Your task to perform on an android device: turn smart compose on in the gmail app Image 0: 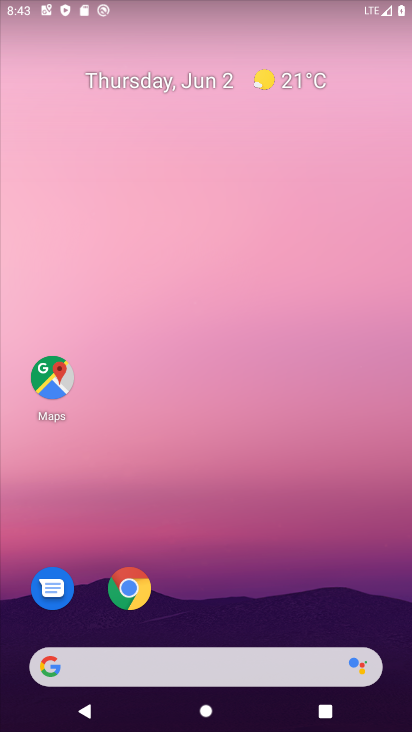
Step 0: drag from (238, 617) to (254, 276)
Your task to perform on an android device: turn smart compose on in the gmail app Image 1: 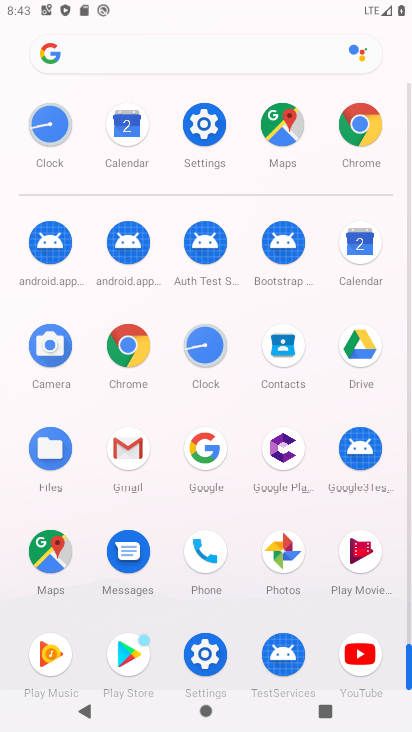
Step 1: drag from (231, 497) to (253, 248)
Your task to perform on an android device: turn smart compose on in the gmail app Image 2: 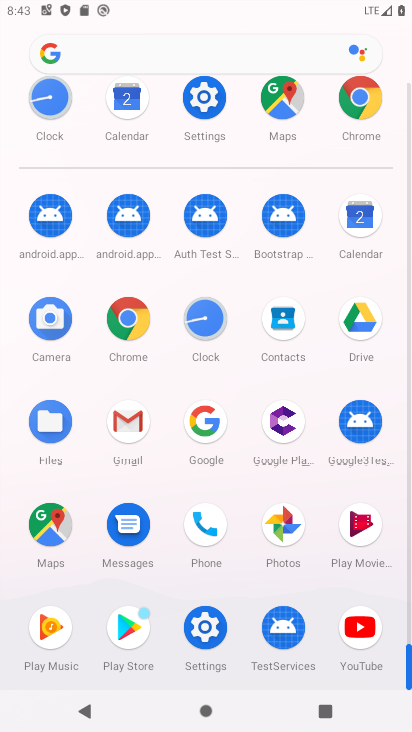
Step 2: click (135, 430)
Your task to perform on an android device: turn smart compose on in the gmail app Image 3: 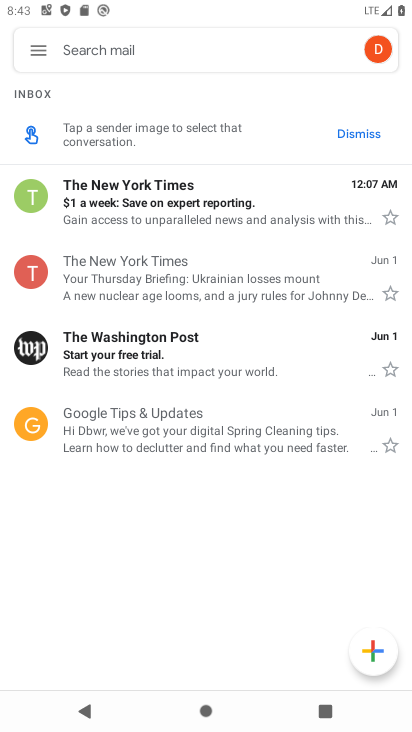
Step 3: click (46, 51)
Your task to perform on an android device: turn smart compose on in the gmail app Image 4: 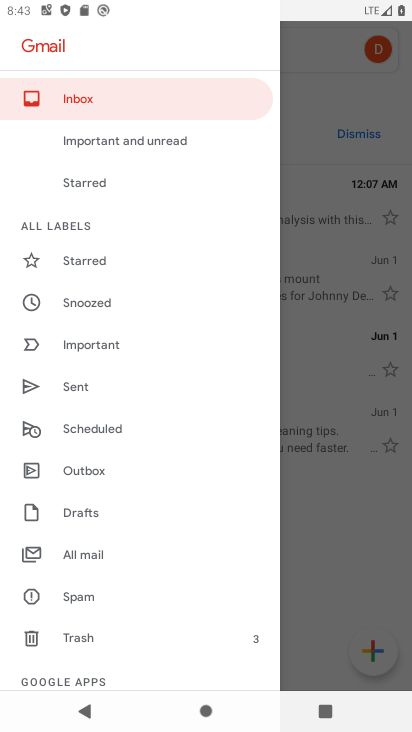
Step 4: drag from (142, 342) to (177, 183)
Your task to perform on an android device: turn smart compose on in the gmail app Image 5: 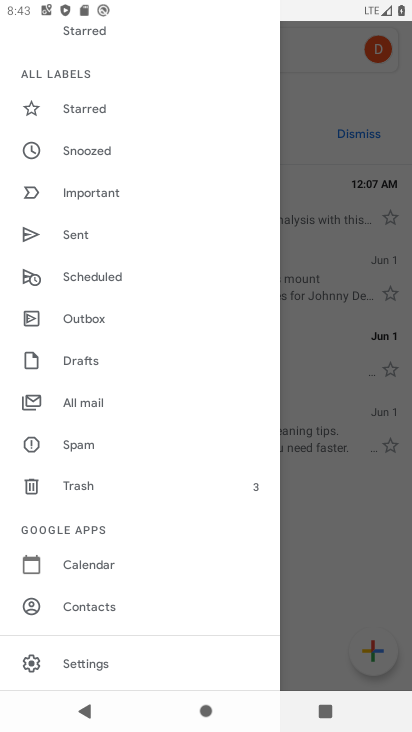
Step 5: click (90, 662)
Your task to perform on an android device: turn smart compose on in the gmail app Image 6: 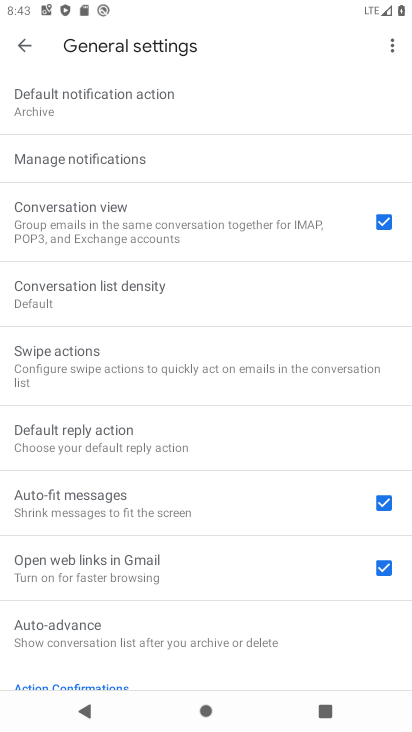
Step 6: click (21, 42)
Your task to perform on an android device: turn smart compose on in the gmail app Image 7: 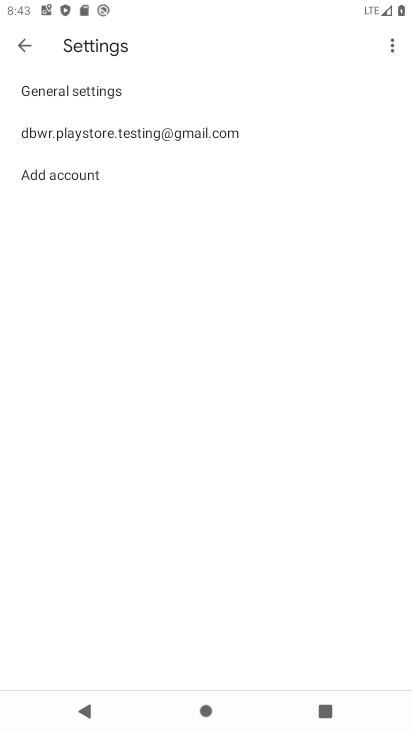
Step 7: click (103, 129)
Your task to perform on an android device: turn smart compose on in the gmail app Image 8: 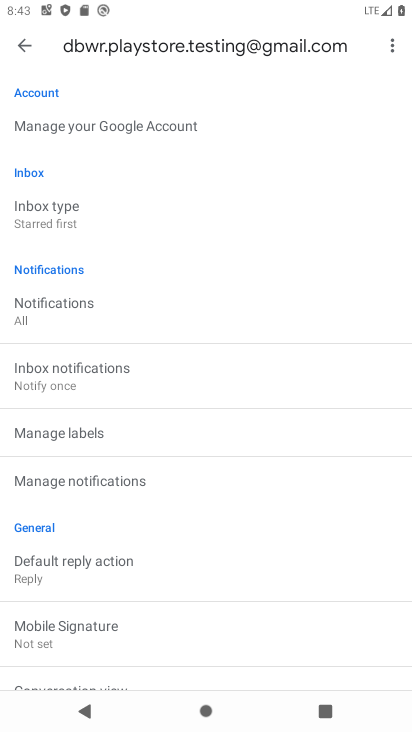
Step 8: task complete